Your task to perform on an android device: open app "Roku - Official Remote Control" Image 0: 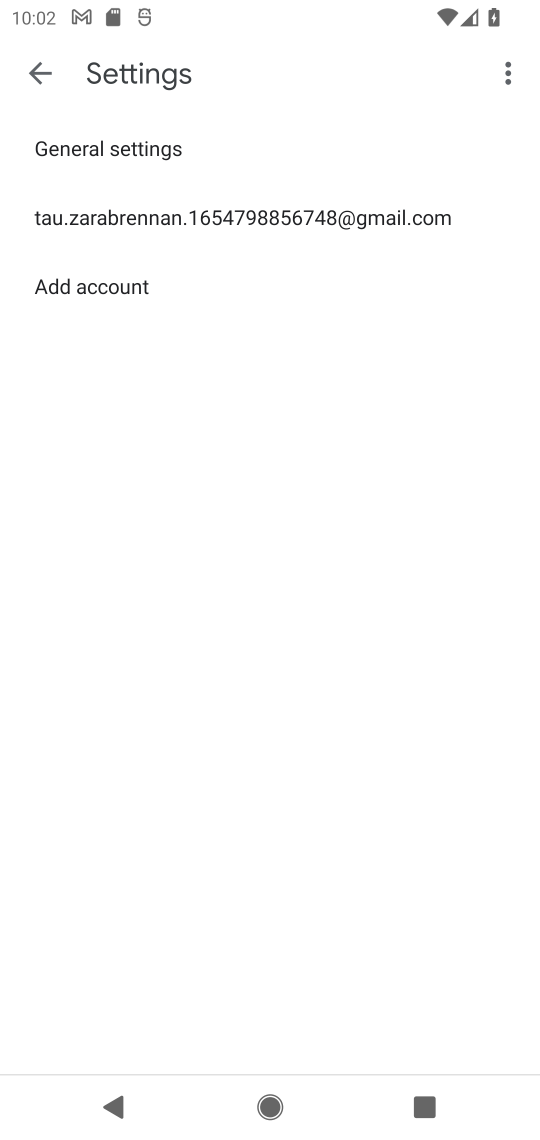
Step 0: press home button
Your task to perform on an android device: open app "Roku - Official Remote Control" Image 1: 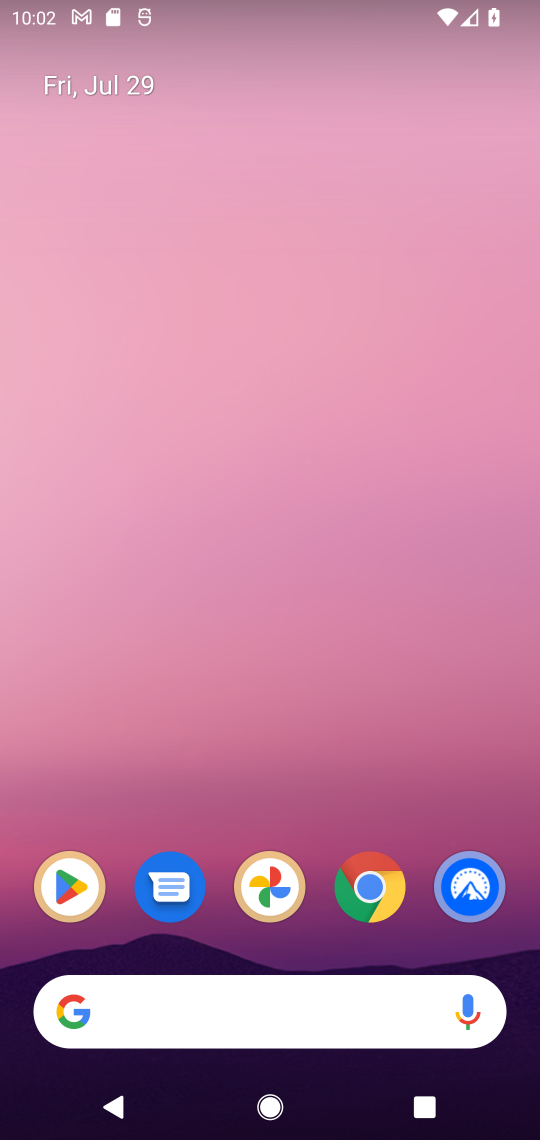
Step 1: click (69, 875)
Your task to perform on an android device: open app "Roku - Official Remote Control" Image 2: 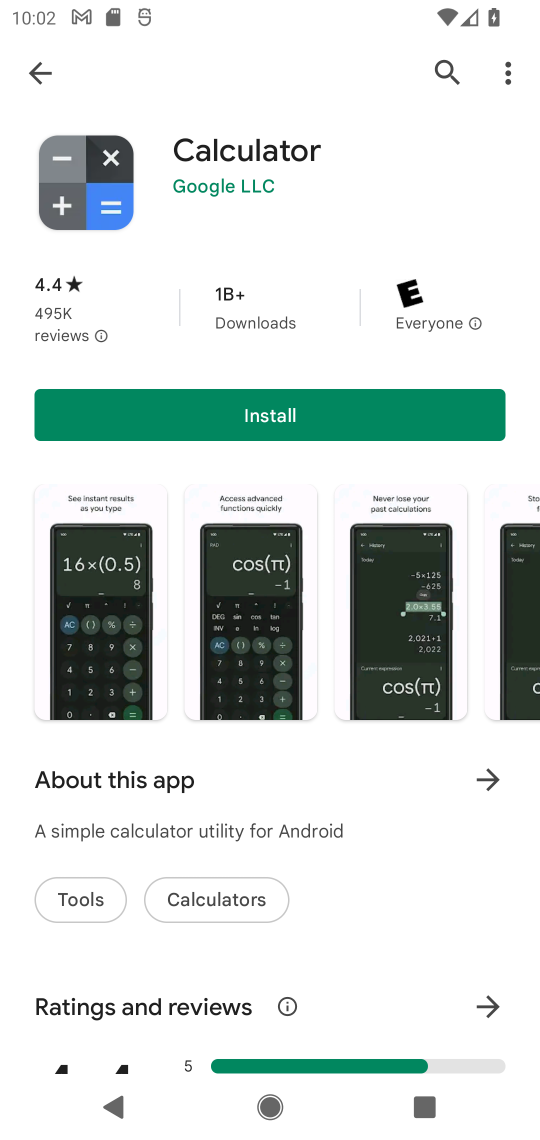
Step 2: click (444, 78)
Your task to perform on an android device: open app "Roku - Official Remote Control" Image 3: 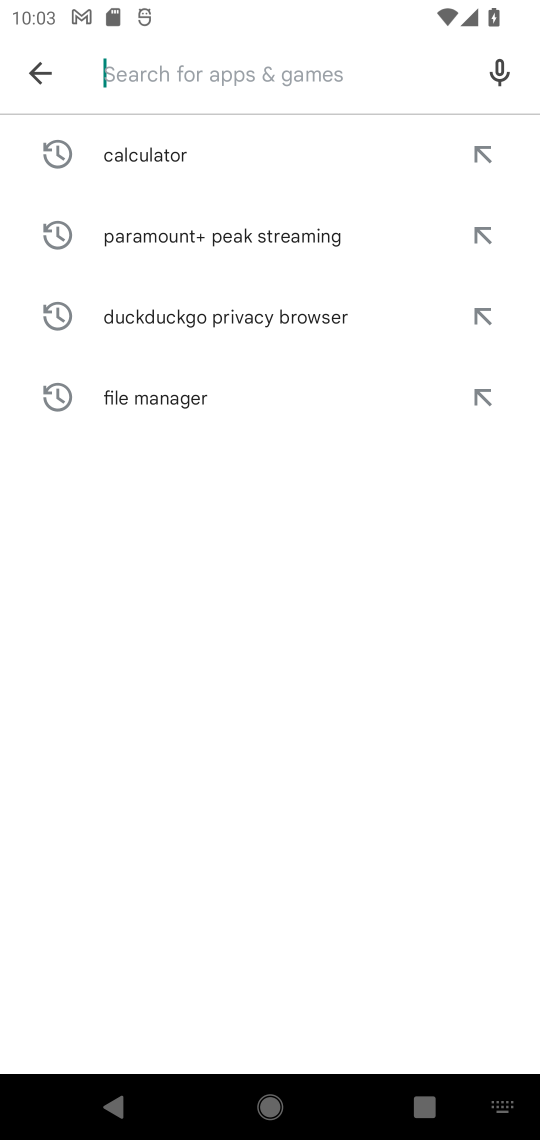
Step 3: type "roku - official remote control"
Your task to perform on an android device: open app "Roku - Official Remote Control" Image 4: 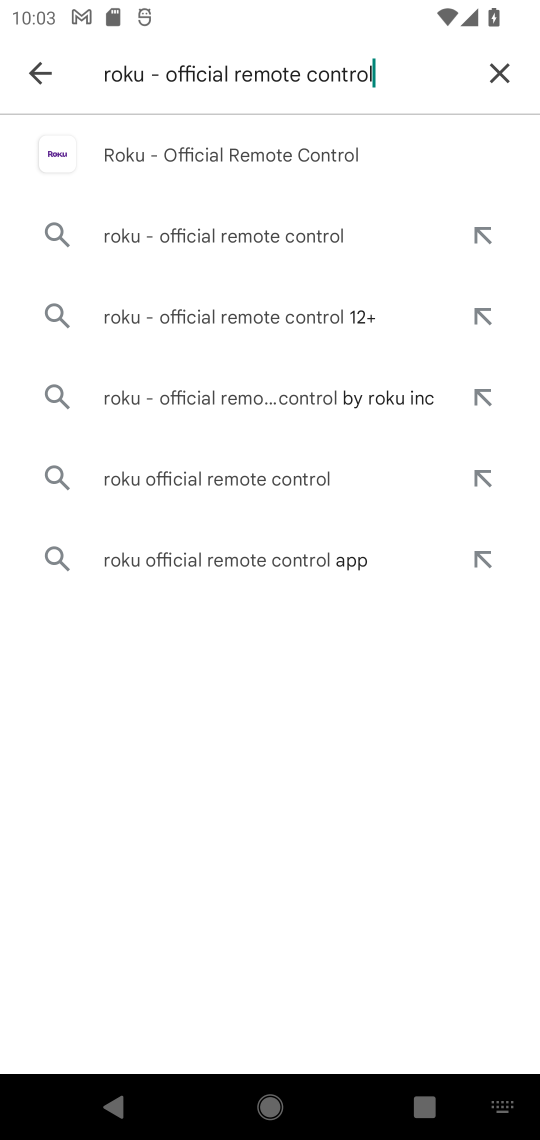
Step 4: click (374, 147)
Your task to perform on an android device: open app "Roku - Official Remote Control" Image 5: 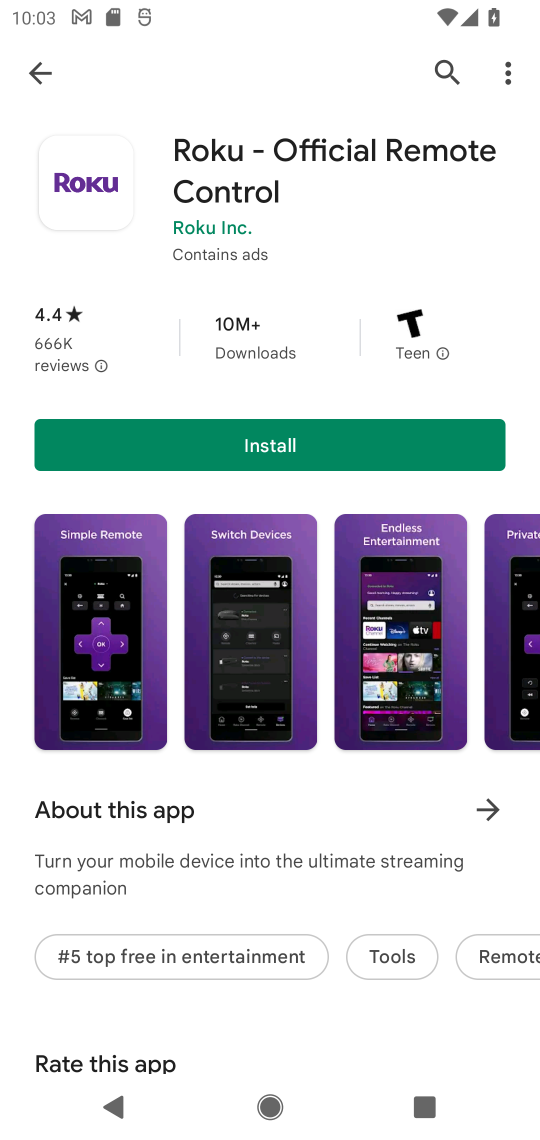
Step 5: task complete